Your task to perform on an android device: toggle wifi Image 0: 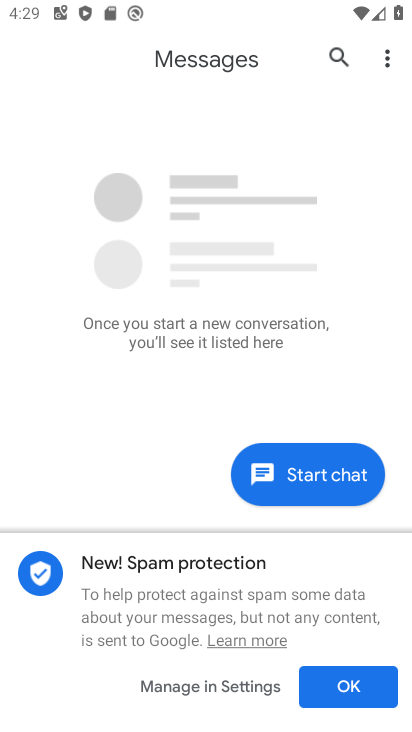
Step 0: drag from (229, 20) to (357, 588)
Your task to perform on an android device: toggle wifi Image 1: 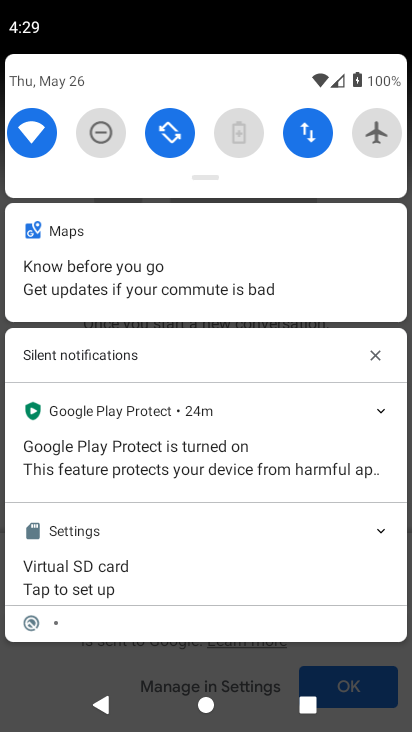
Step 1: click (26, 139)
Your task to perform on an android device: toggle wifi Image 2: 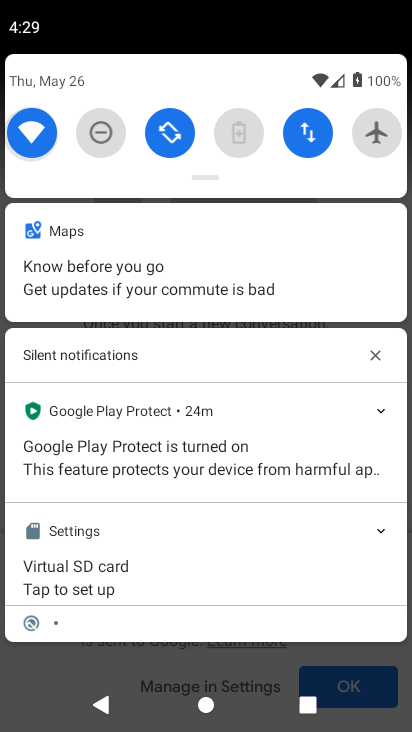
Step 2: click (26, 139)
Your task to perform on an android device: toggle wifi Image 3: 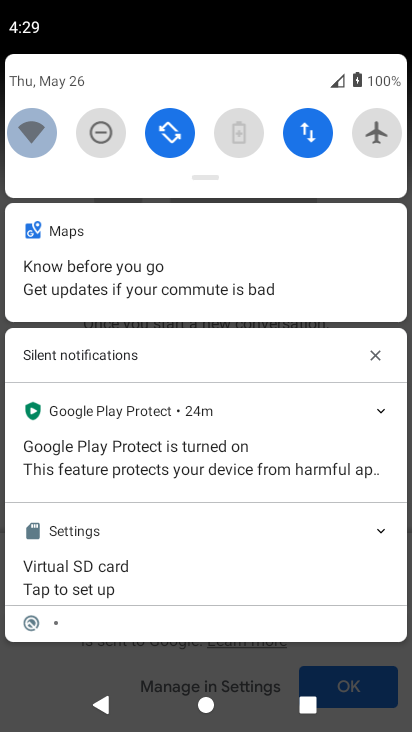
Step 3: click (26, 139)
Your task to perform on an android device: toggle wifi Image 4: 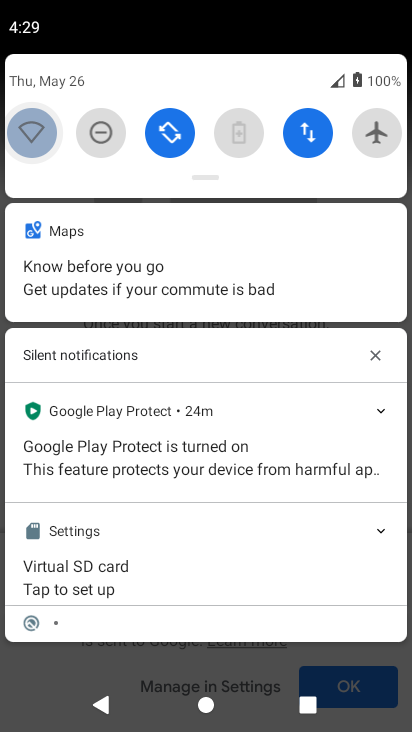
Step 4: click (26, 139)
Your task to perform on an android device: toggle wifi Image 5: 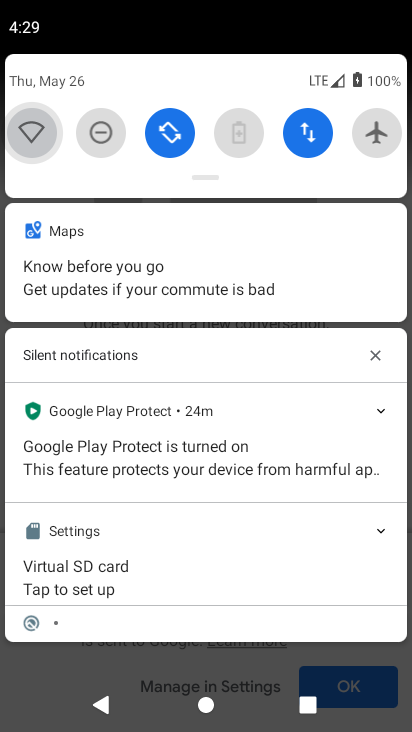
Step 5: click (26, 139)
Your task to perform on an android device: toggle wifi Image 6: 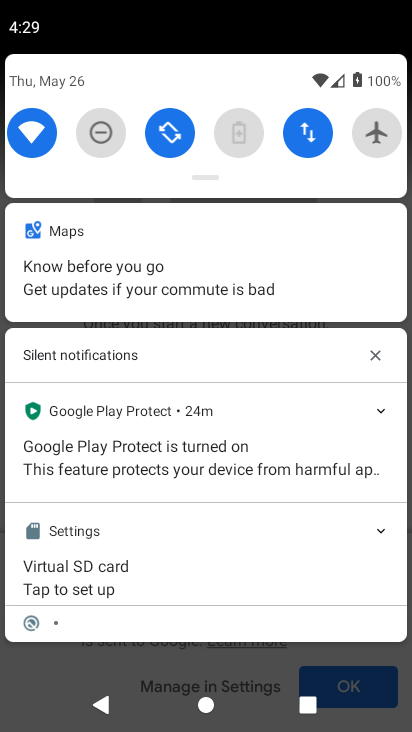
Step 6: task complete